Your task to perform on an android device: Search for shimano brake pads on Walmart Image 0: 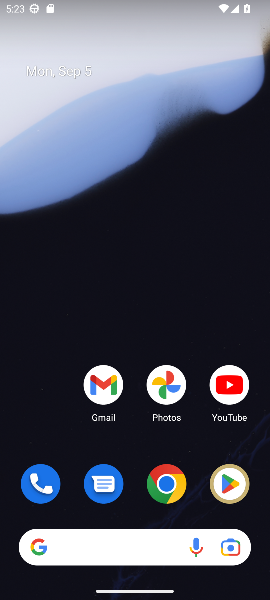
Step 0: click (165, 475)
Your task to perform on an android device: Search for shimano brake pads on Walmart Image 1: 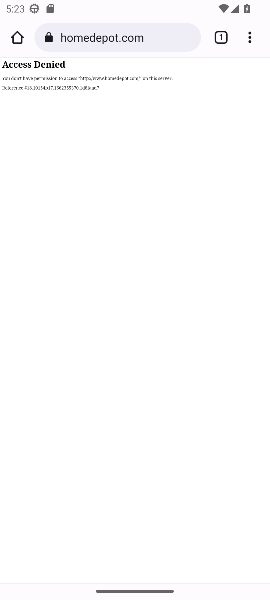
Step 1: click (163, 42)
Your task to perform on an android device: Search for shimano brake pads on Walmart Image 2: 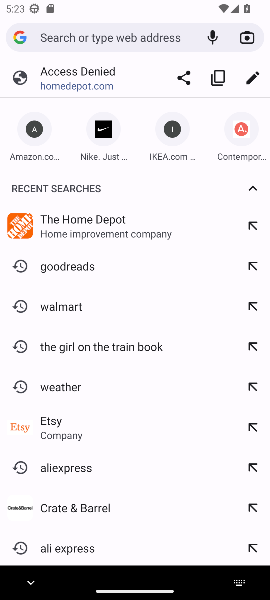
Step 2: type "Walmart"
Your task to perform on an android device: Search for shimano brake pads on Walmart Image 3: 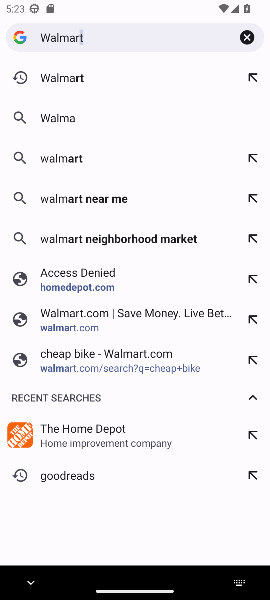
Step 3: press enter
Your task to perform on an android device: Search for shimano brake pads on Walmart Image 4: 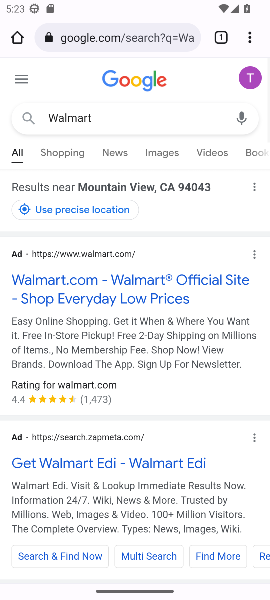
Step 4: drag from (159, 446) to (270, 181)
Your task to perform on an android device: Search for shimano brake pads on Walmart Image 5: 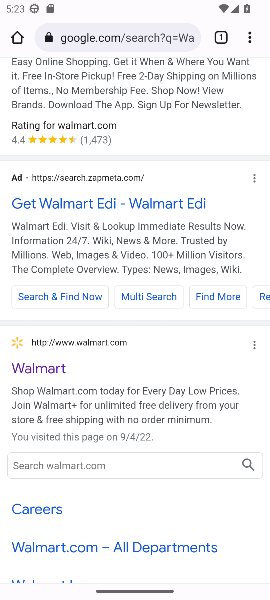
Step 5: click (49, 372)
Your task to perform on an android device: Search for shimano brake pads on Walmart Image 6: 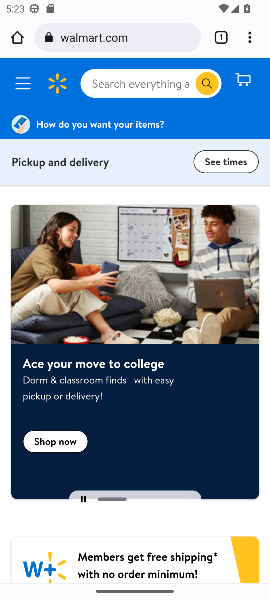
Step 6: click (130, 78)
Your task to perform on an android device: Search for shimano brake pads on Walmart Image 7: 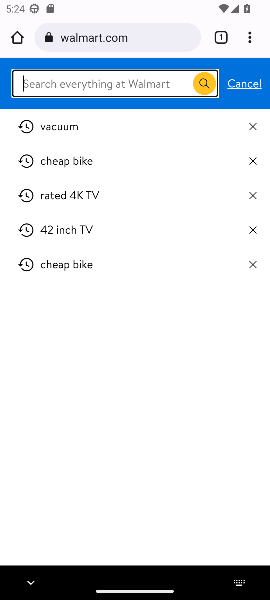
Step 7: type "shimano brake pads"
Your task to perform on an android device: Search for shimano brake pads on Walmart Image 8: 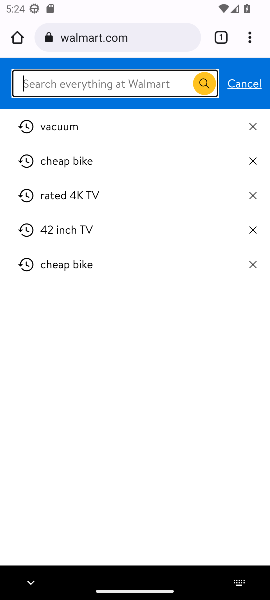
Step 8: press enter
Your task to perform on an android device: Search for shimano brake pads on Walmart Image 9: 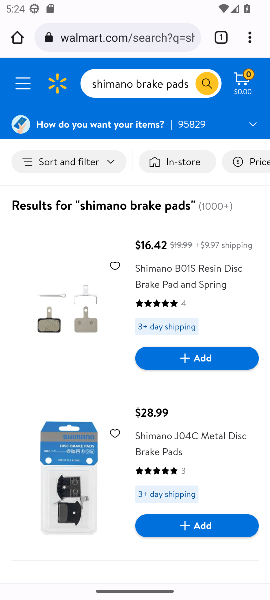
Step 9: task complete